Your task to perform on an android device: find which apps use the phone's location Image 0: 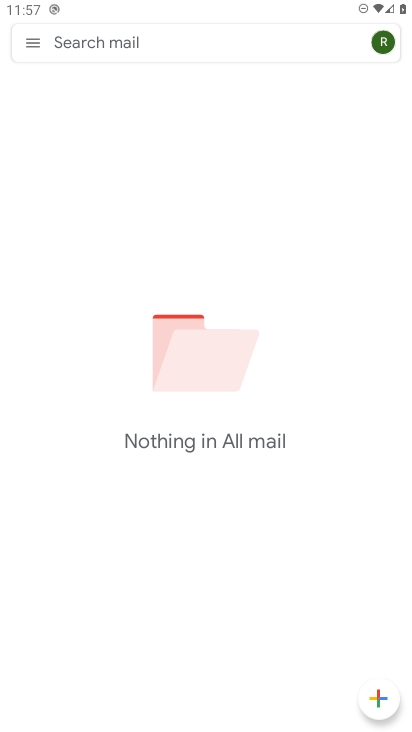
Step 0: press home button
Your task to perform on an android device: find which apps use the phone's location Image 1: 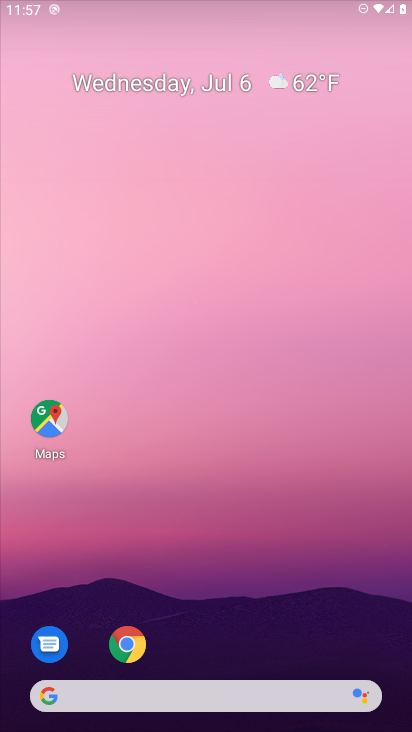
Step 1: drag from (337, 554) to (277, 156)
Your task to perform on an android device: find which apps use the phone's location Image 2: 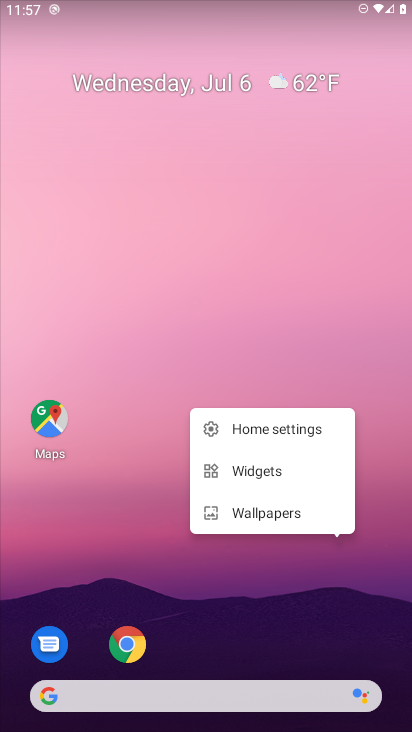
Step 2: drag from (142, 535) to (236, 1)
Your task to perform on an android device: find which apps use the phone's location Image 3: 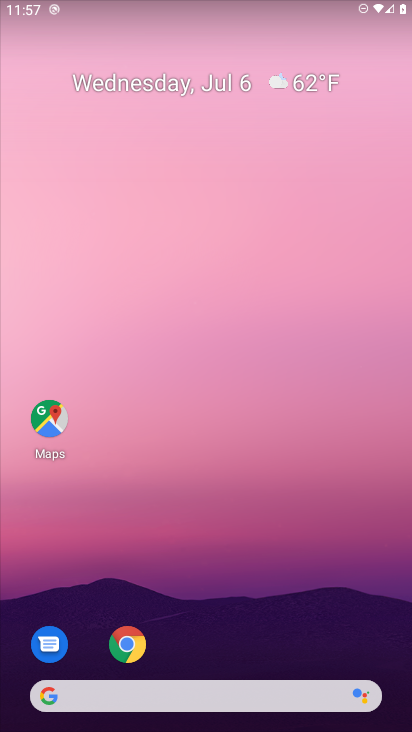
Step 3: drag from (217, 516) to (401, 406)
Your task to perform on an android device: find which apps use the phone's location Image 4: 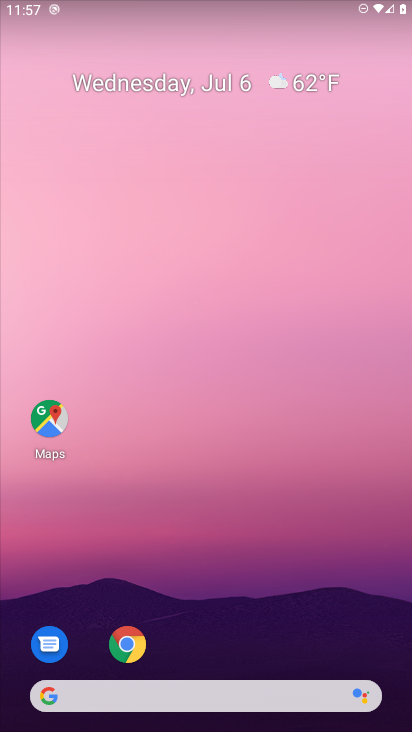
Step 4: drag from (309, 536) to (329, 110)
Your task to perform on an android device: find which apps use the phone's location Image 5: 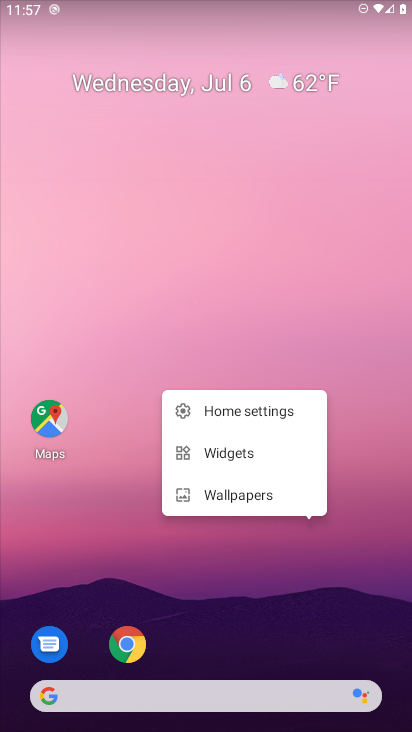
Step 5: press home button
Your task to perform on an android device: find which apps use the phone's location Image 6: 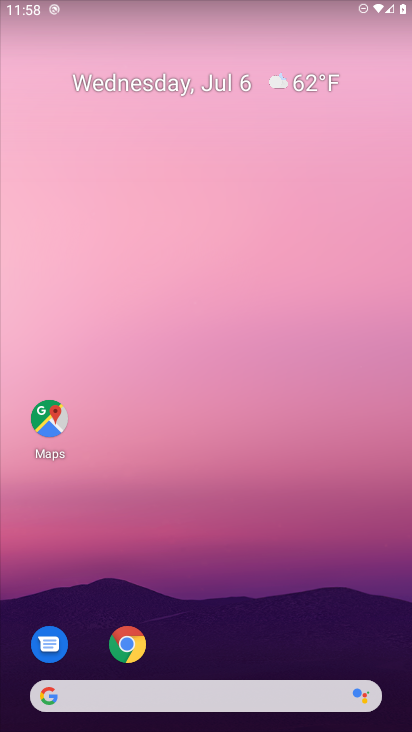
Step 6: drag from (252, 579) to (392, 0)
Your task to perform on an android device: find which apps use the phone's location Image 7: 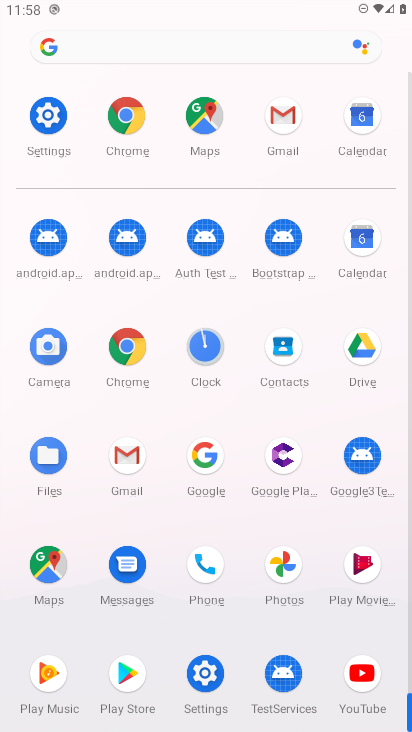
Step 7: click (57, 115)
Your task to perform on an android device: find which apps use the phone's location Image 8: 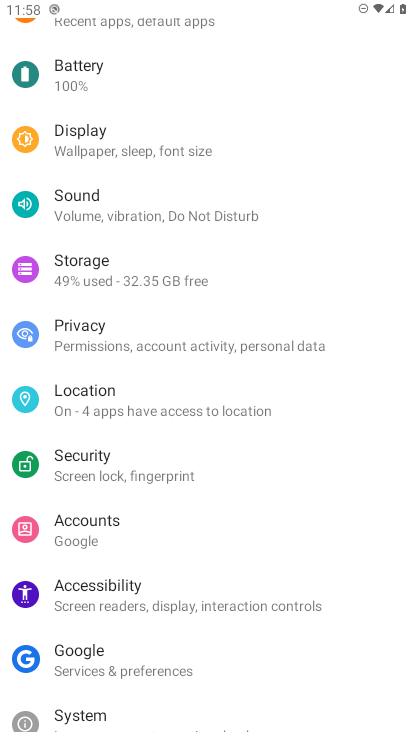
Step 8: click (138, 397)
Your task to perform on an android device: find which apps use the phone's location Image 9: 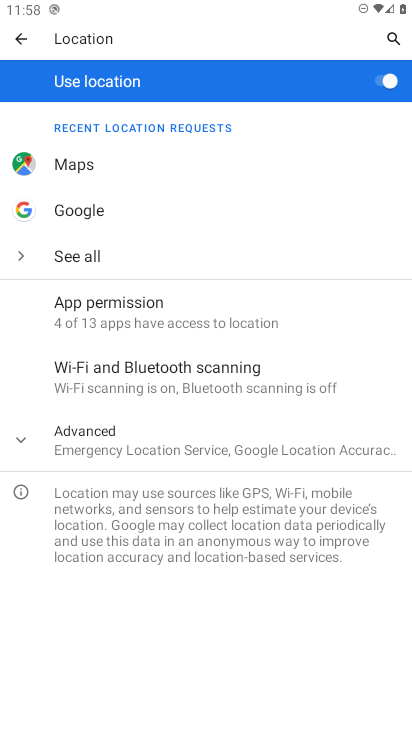
Step 9: click (138, 312)
Your task to perform on an android device: find which apps use the phone's location Image 10: 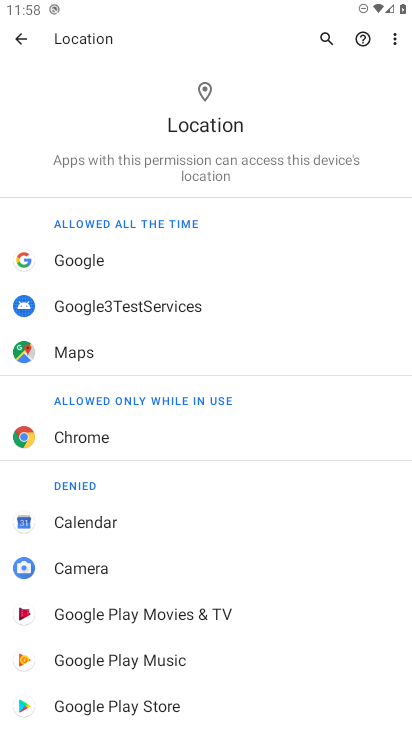
Step 10: task complete